Your task to perform on an android device: turn on data saver in the chrome app Image 0: 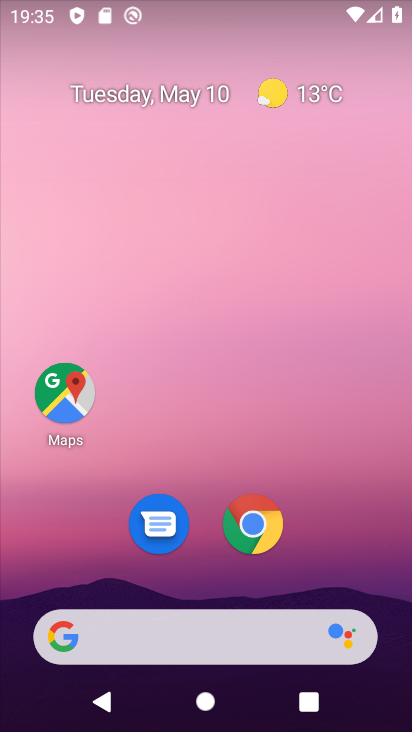
Step 0: click (261, 525)
Your task to perform on an android device: turn on data saver in the chrome app Image 1: 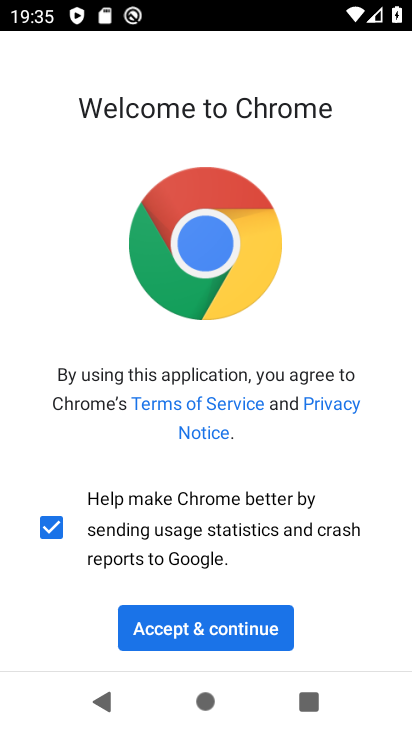
Step 1: click (261, 626)
Your task to perform on an android device: turn on data saver in the chrome app Image 2: 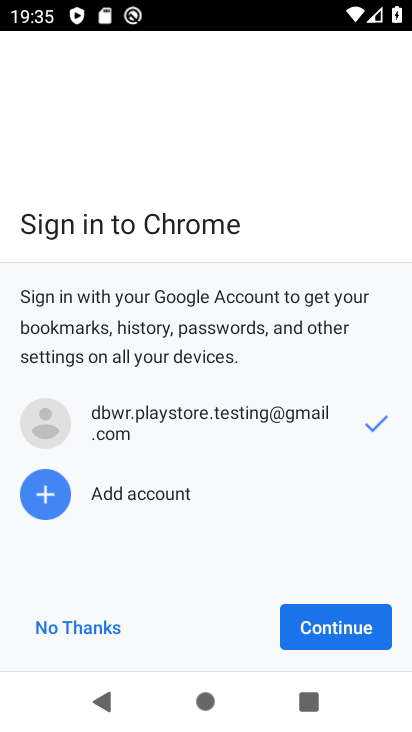
Step 2: click (323, 623)
Your task to perform on an android device: turn on data saver in the chrome app Image 3: 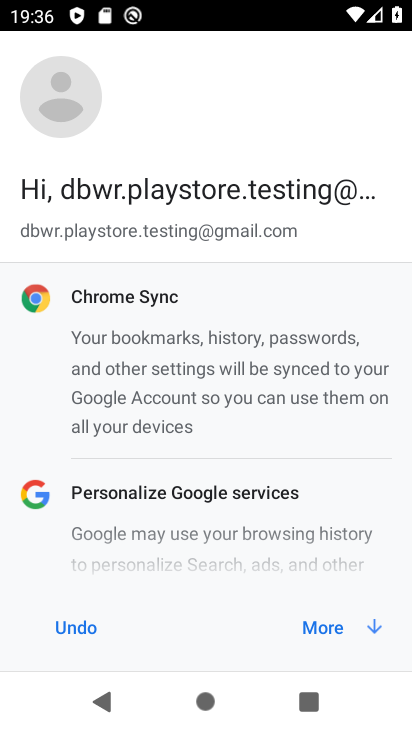
Step 3: click (323, 623)
Your task to perform on an android device: turn on data saver in the chrome app Image 4: 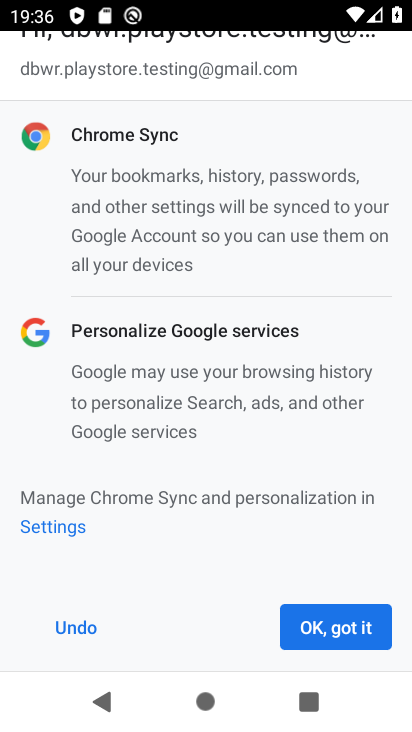
Step 4: click (323, 623)
Your task to perform on an android device: turn on data saver in the chrome app Image 5: 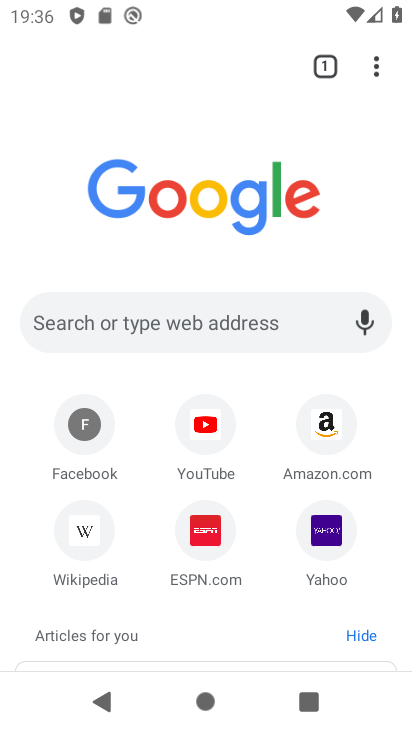
Step 5: click (376, 68)
Your task to perform on an android device: turn on data saver in the chrome app Image 6: 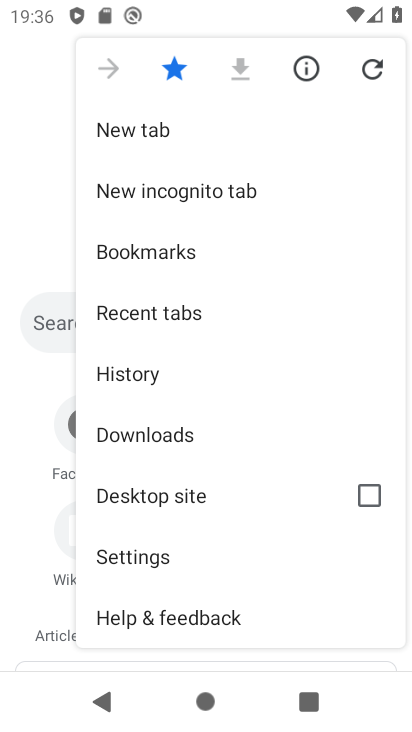
Step 6: click (164, 554)
Your task to perform on an android device: turn on data saver in the chrome app Image 7: 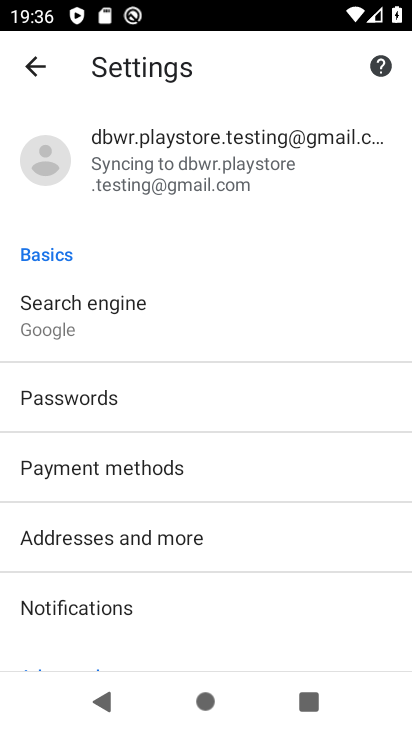
Step 7: drag from (164, 554) to (192, 303)
Your task to perform on an android device: turn on data saver in the chrome app Image 8: 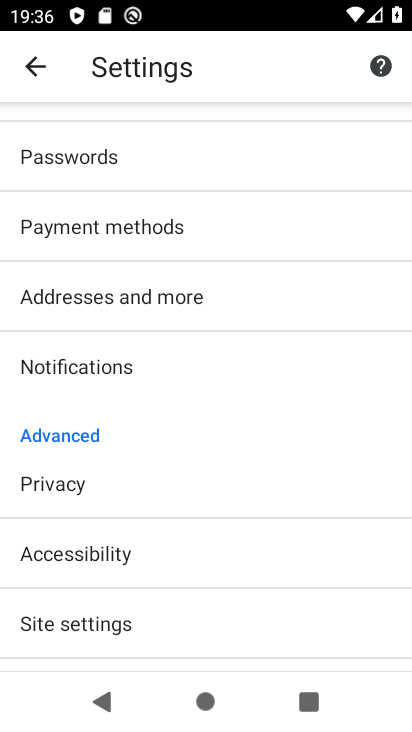
Step 8: drag from (190, 604) to (241, 222)
Your task to perform on an android device: turn on data saver in the chrome app Image 9: 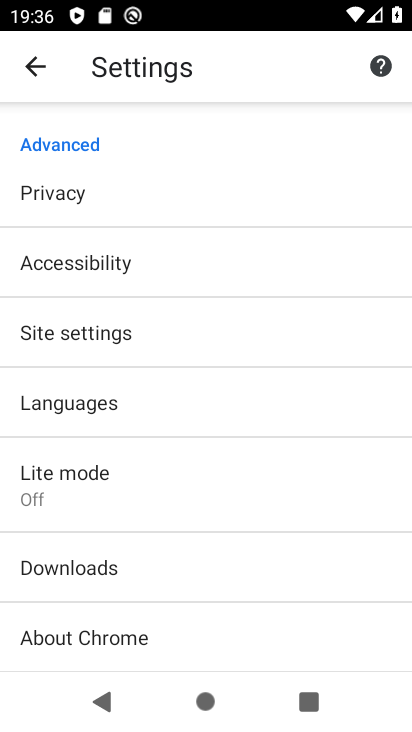
Step 9: click (162, 489)
Your task to perform on an android device: turn on data saver in the chrome app Image 10: 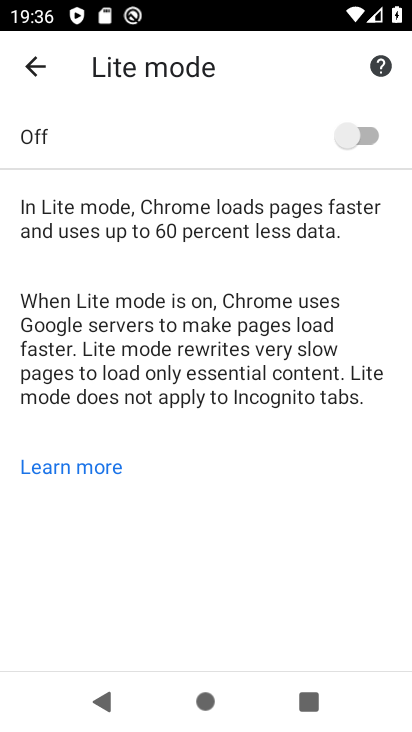
Step 10: click (362, 130)
Your task to perform on an android device: turn on data saver in the chrome app Image 11: 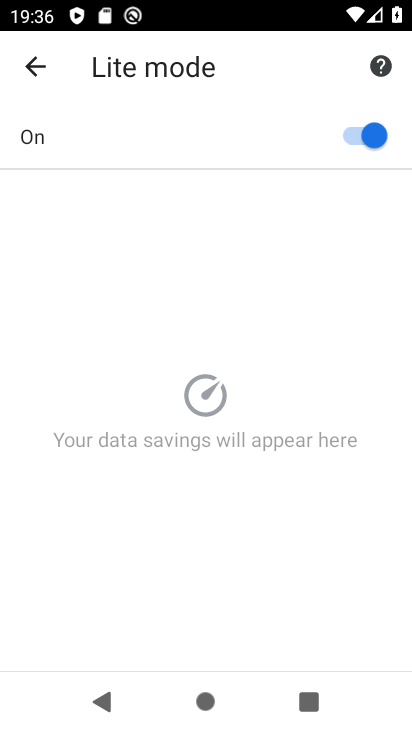
Step 11: task complete